Your task to perform on an android device: toggle priority inbox in the gmail app Image 0: 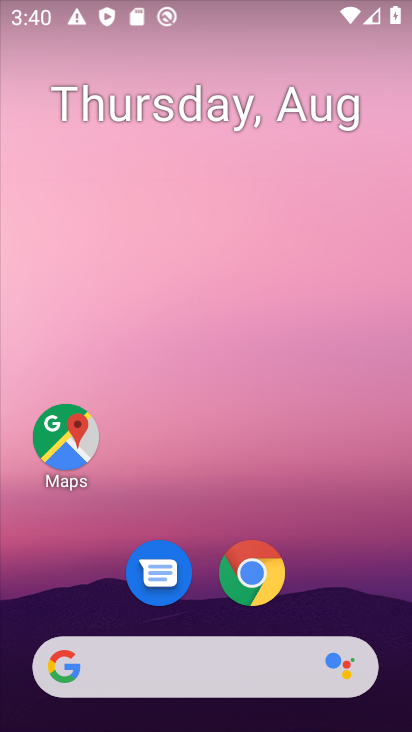
Step 0: drag from (188, 657) to (150, 248)
Your task to perform on an android device: toggle priority inbox in the gmail app Image 1: 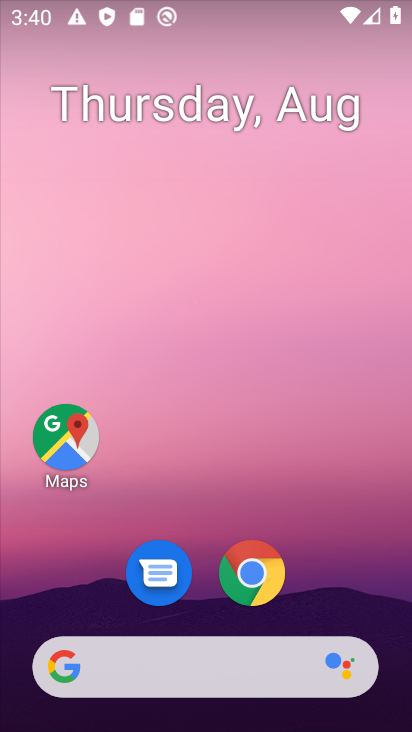
Step 1: click (144, 87)
Your task to perform on an android device: toggle priority inbox in the gmail app Image 2: 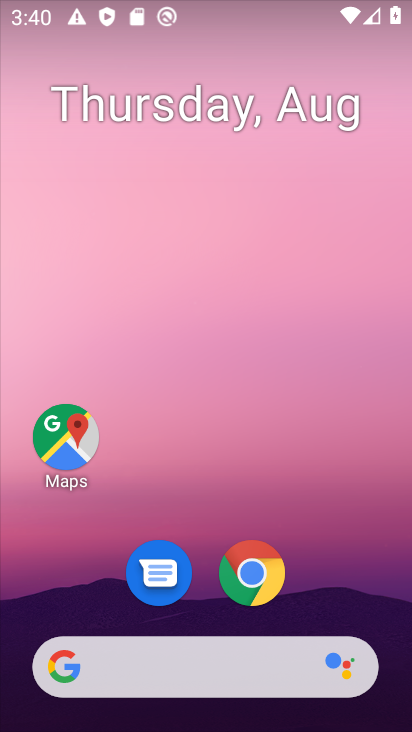
Step 2: drag from (241, 39) to (144, 144)
Your task to perform on an android device: toggle priority inbox in the gmail app Image 3: 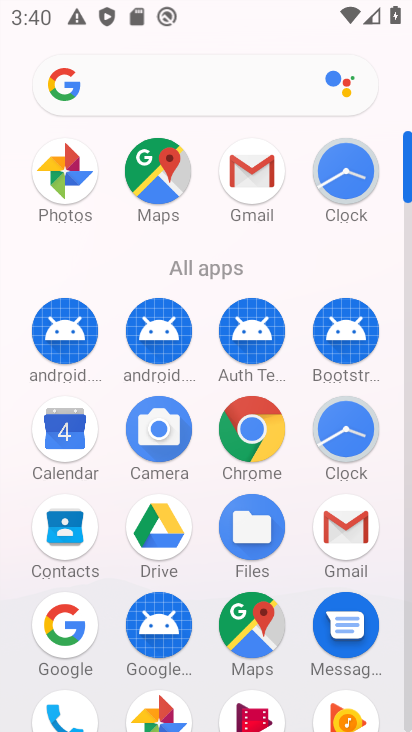
Step 3: drag from (251, 525) to (217, 192)
Your task to perform on an android device: toggle priority inbox in the gmail app Image 4: 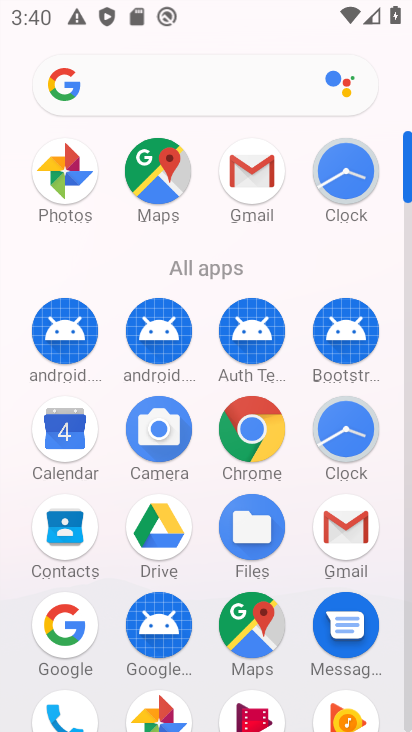
Step 4: click (245, 173)
Your task to perform on an android device: toggle priority inbox in the gmail app Image 5: 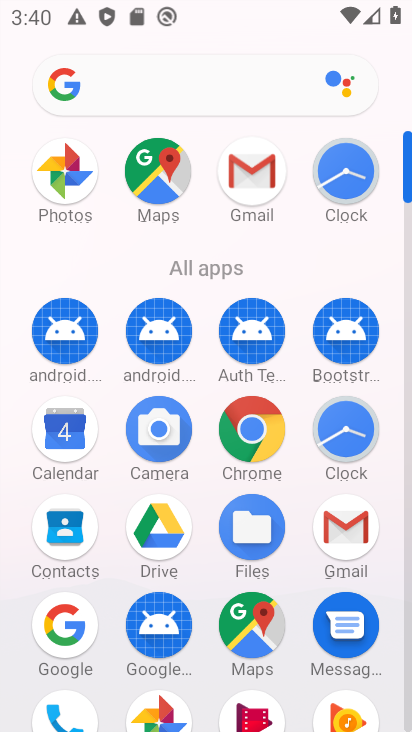
Step 5: click (248, 174)
Your task to perform on an android device: toggle priority inbox in the gmail app Image 6: 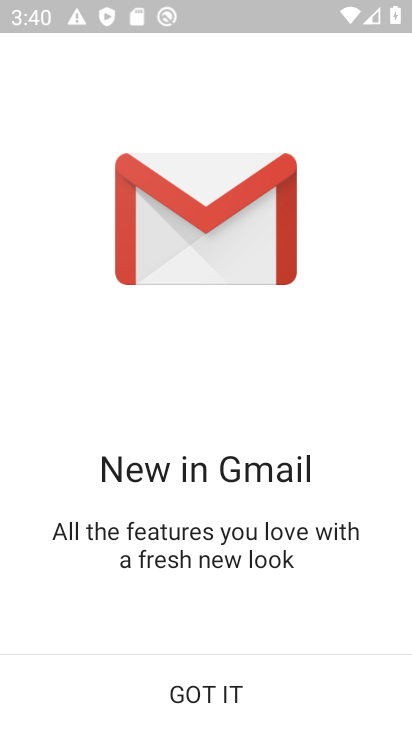
Step 6: click (206, 690)
Your task to perform on an android device: toggle priority inbox in the gmail app Image 7: 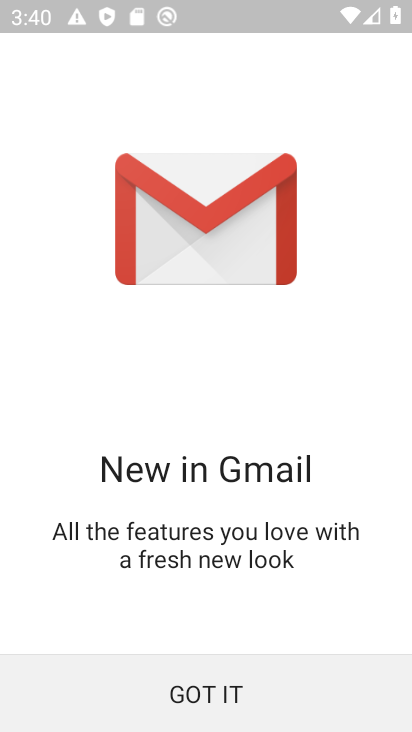
Step 7: click (209, 698)
Your task to perform on an android device: toggle priority inbox in the gmail app Image 8: 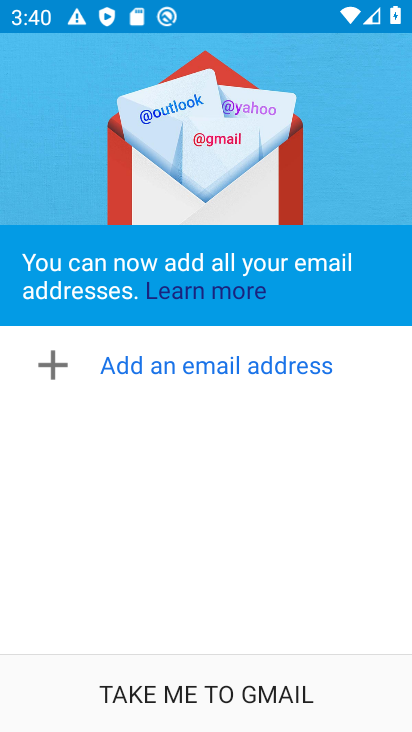
Step 8: click (222, 697)
Your task to perform on an android device: toggle priority inbox in the gmail app Image 9: 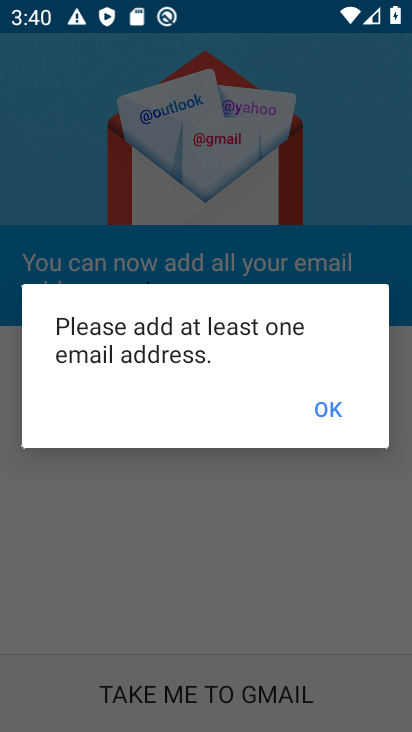
Step 9: click (316, 407)
Your task to perform on an android device: toggle priority inbox in the gmail app Image 10: 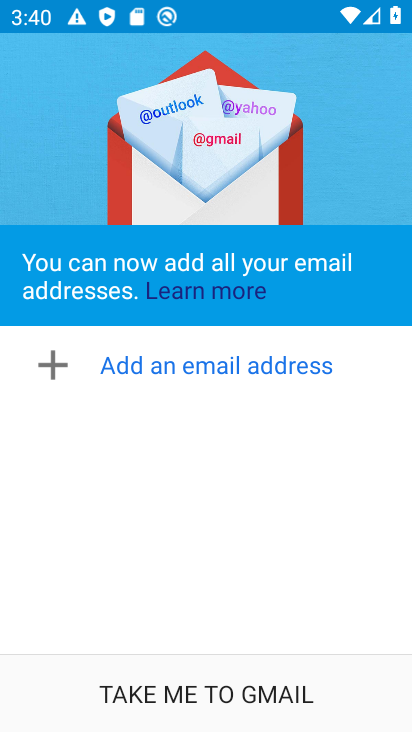
Step 10: task complete